Your task to perform on an android device: Search for duracell triple a on newegg, select the first entry, add it to the cart, then select checkout. Image 0: 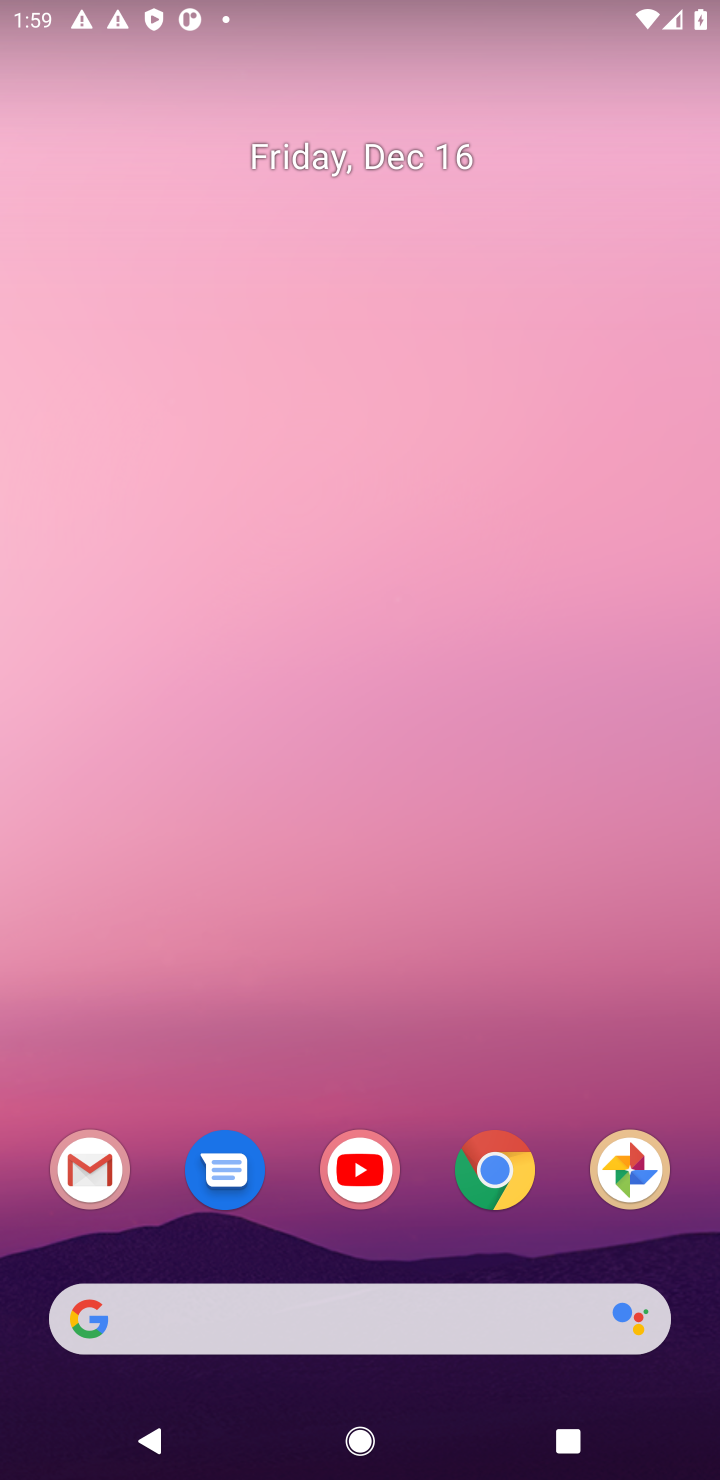
Step 0: click (489, 1179)
Your task to perform on an android device: Search for duracell triple a on newegg, select the first entry, add it to the cart, then select checkout. Image 1: 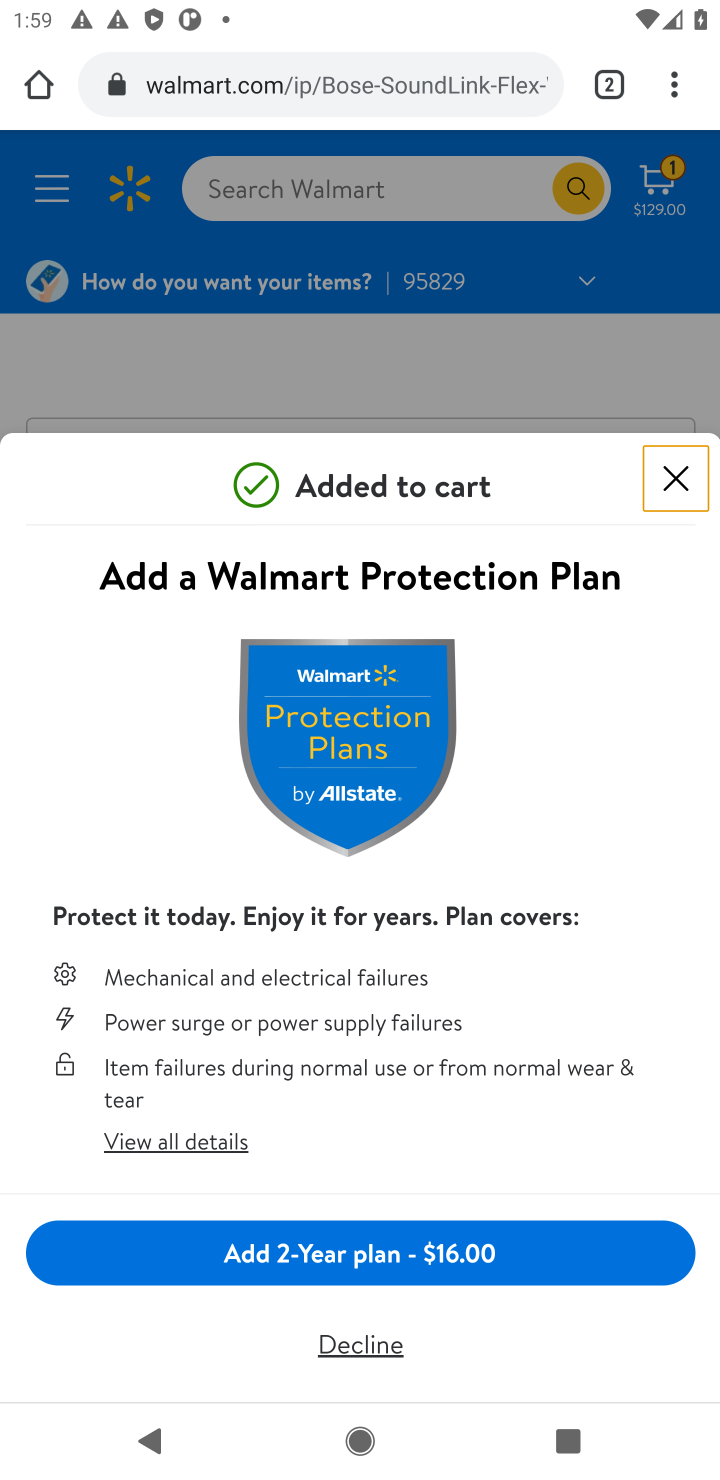
Step 1: click (330, 96)
Your task to perform on an android device: Search for duracell triple a on newegg, select the first entry, add it to the cart, then select checkout. Image 2: 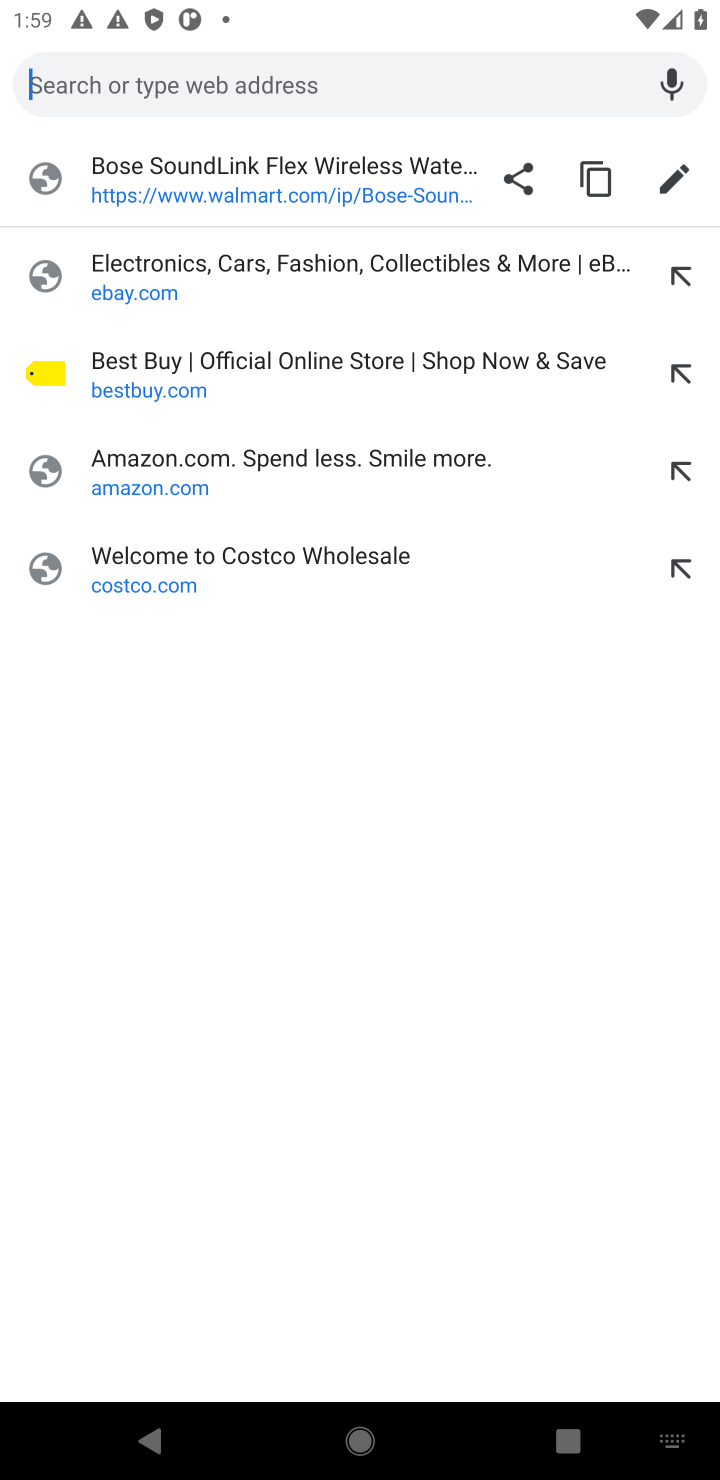
Step 2: type "newegg.com"
Your task to perform on an android device: Search for duracell triple a on newegg, select the first entry, add it to the cart, then select checkout. Image 3: 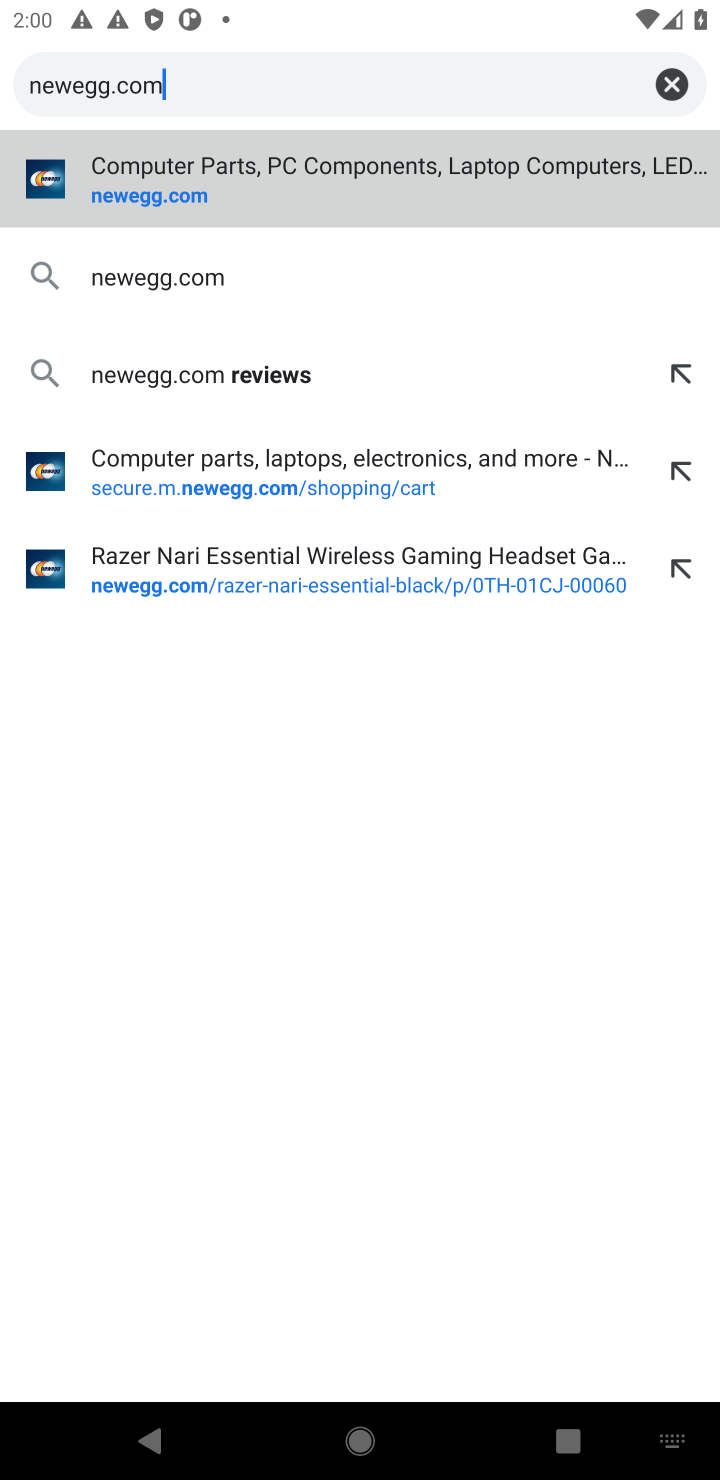
Step 3: click (168, 194)
Your task to perform on an android device: Search for duracell triple a on newegg, select the first entry, add it to the cart, then select checkout. Image 4: 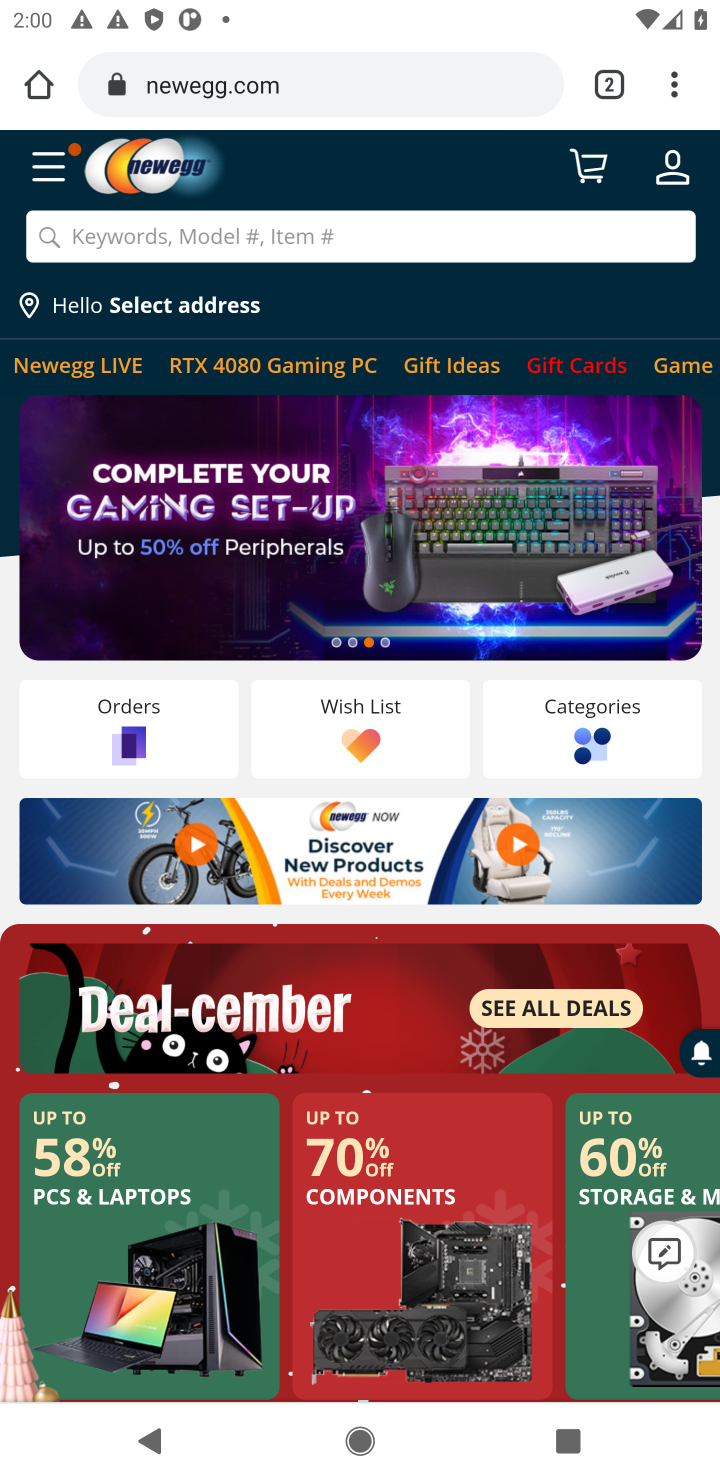
Step 4: click (135, 245)
Your task to perform on an android device: Search for duracell triple a on newegg, select the first entry, add it to the cart, then select checkout. Image 5: 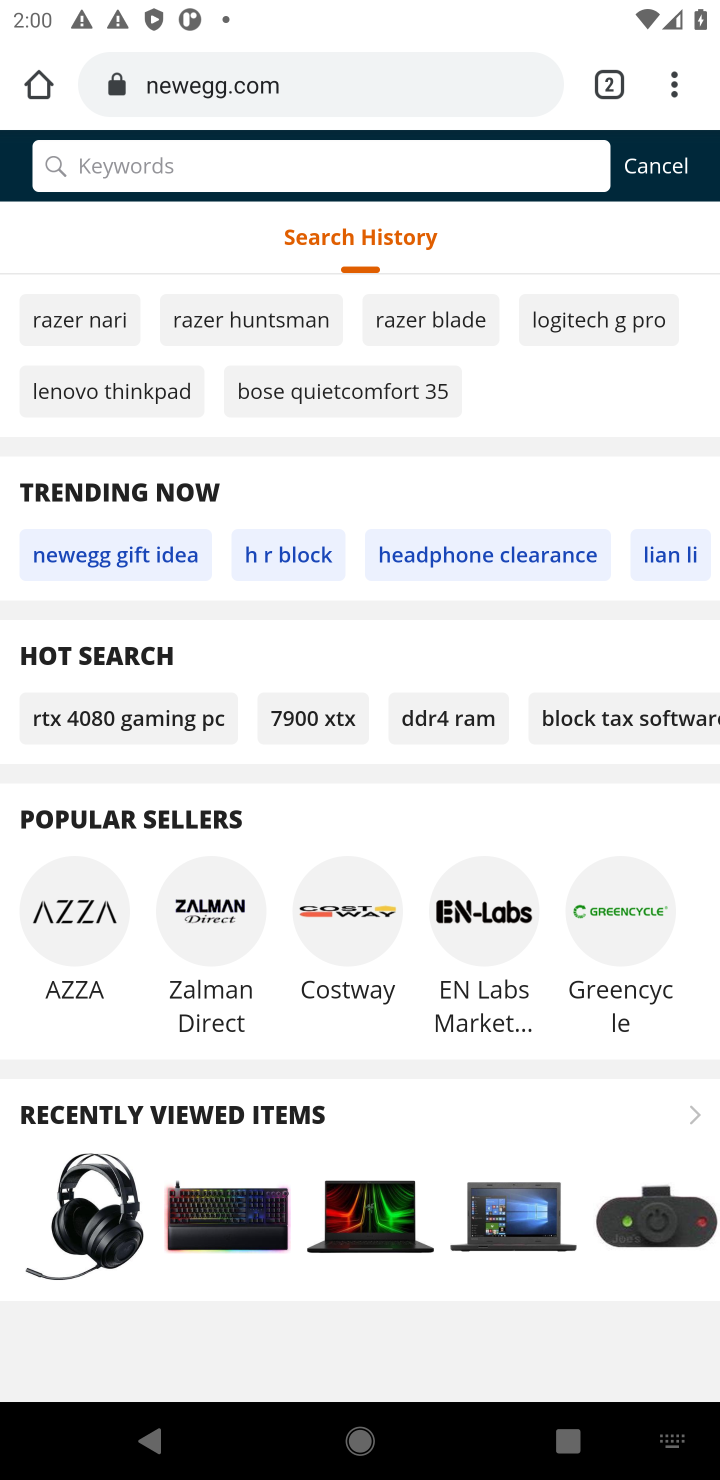
Step 5: type "duracell triple a"
Your task to perform on an android device: Search for duracell triple a on newegg, select the first entry, add it to the cart, then select checkout. Image 6: 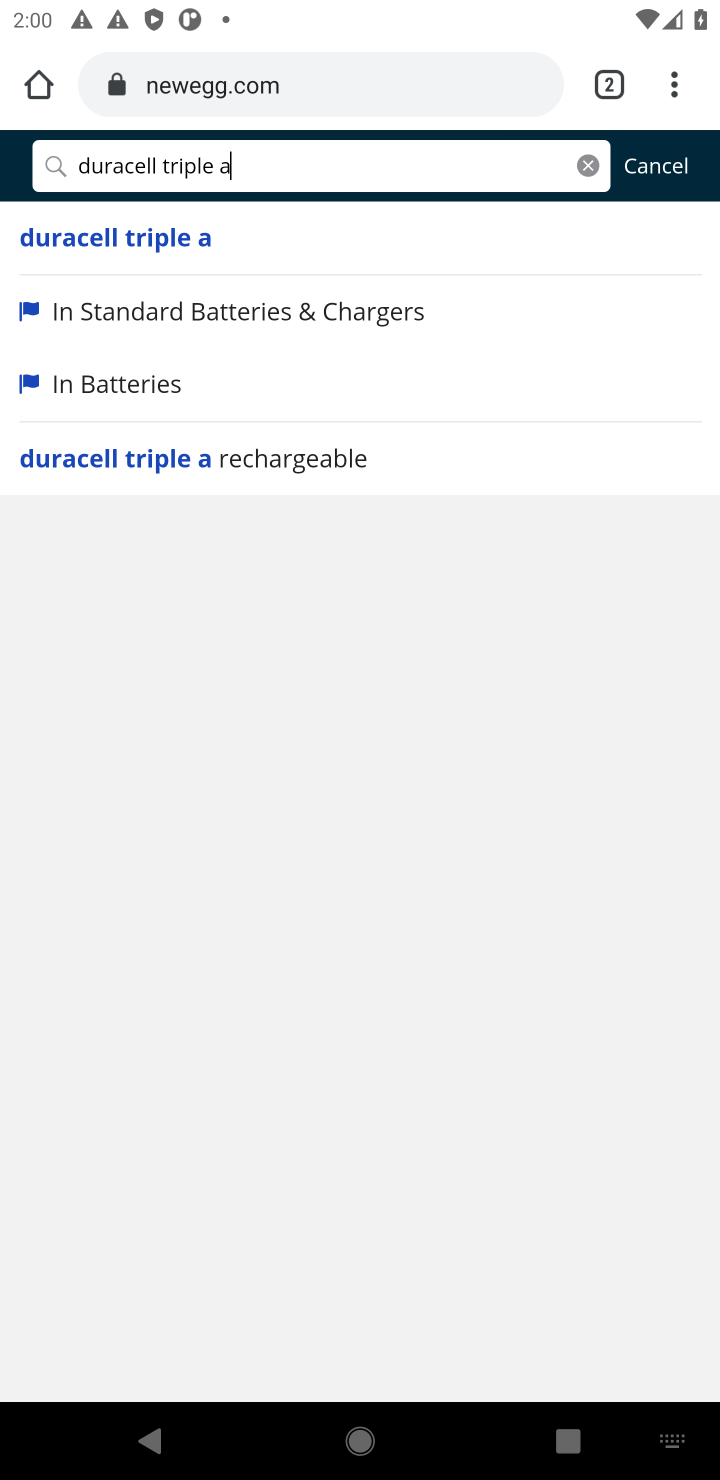
Step 6: click (141, 239)
Your task to perform on an android device: Search for duracell triple a on newegg, select the first entry, add it to the cart, then select checkout. Image 7: 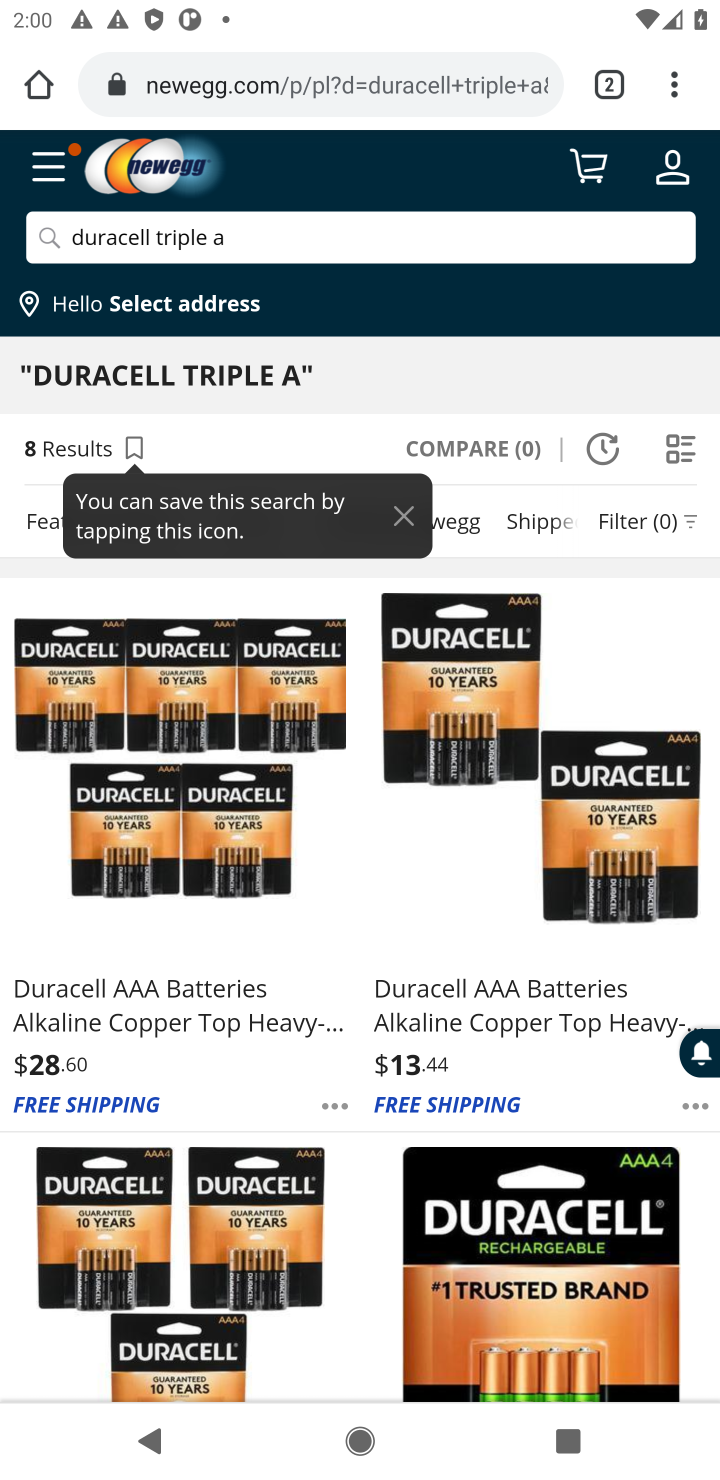
Step 7: click (179, 848)
Your task to perform on an android device: Search for duracell triple a on newegg, select the first entry, add it to the cart, then select checkout. Image 8: 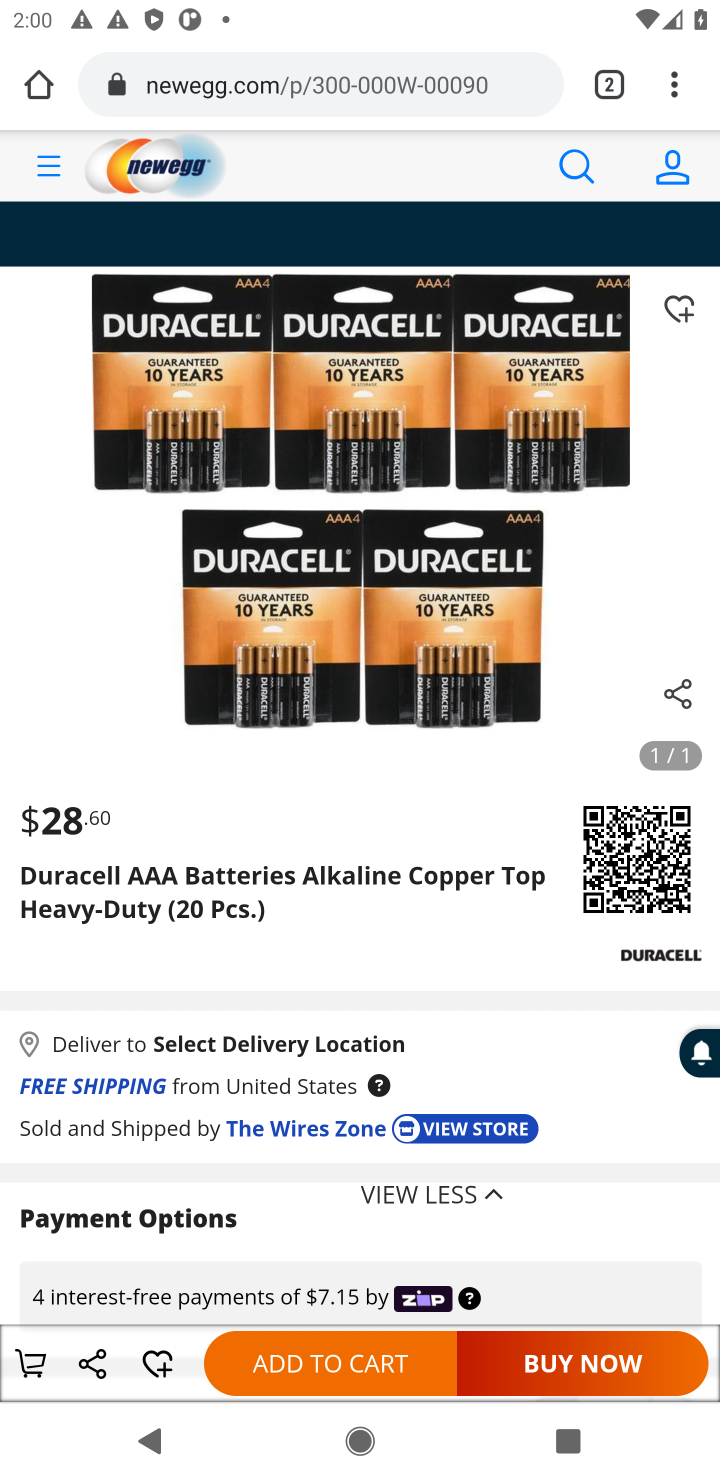
Step 8: click (310, 1352)
Your task to perform on an android device: Search for duracell triple a on newegg, select the first entry, add it to the cart, then select checkout. Image 9: 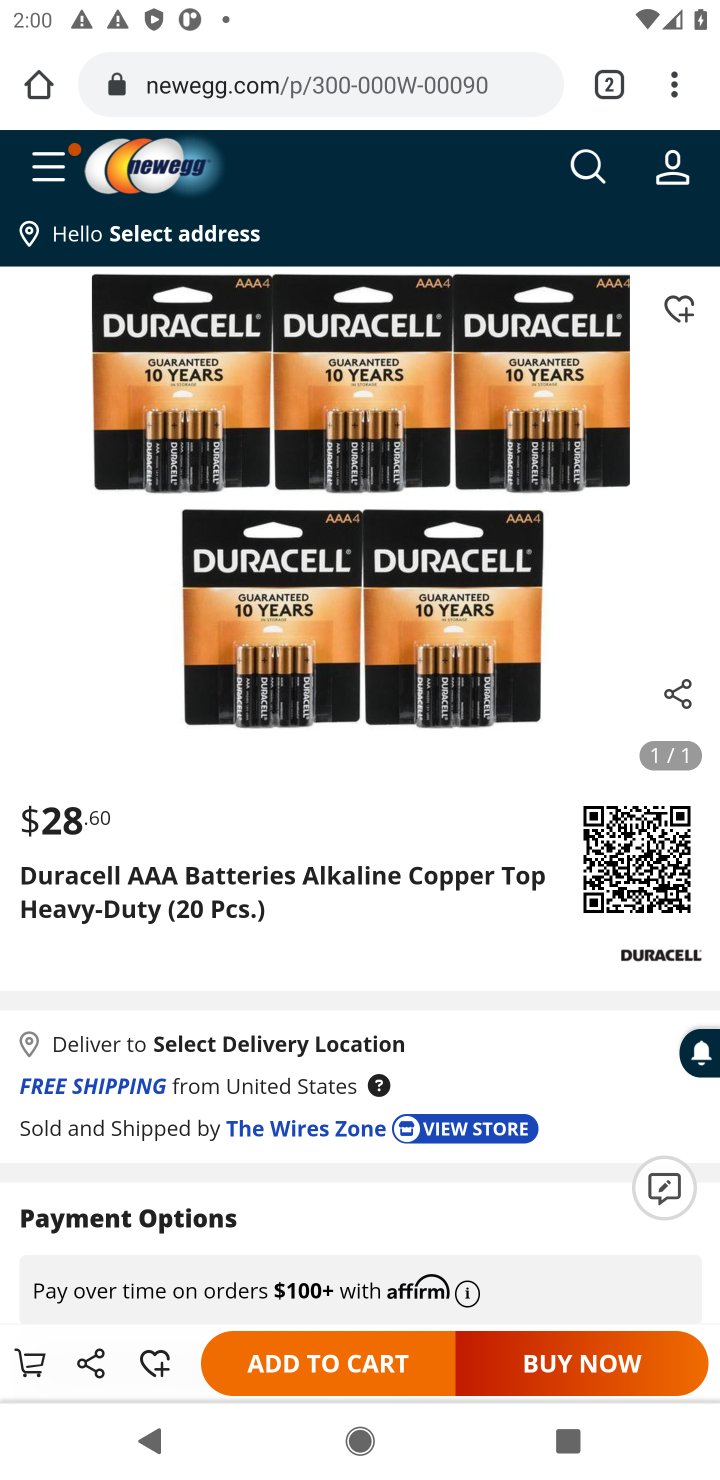
Step 9: click (324, 1369)
Your task to perform on an android device: Search for duracell triple a on newegg, select the first entry, add it to the cart, then select checkout. Image 10: 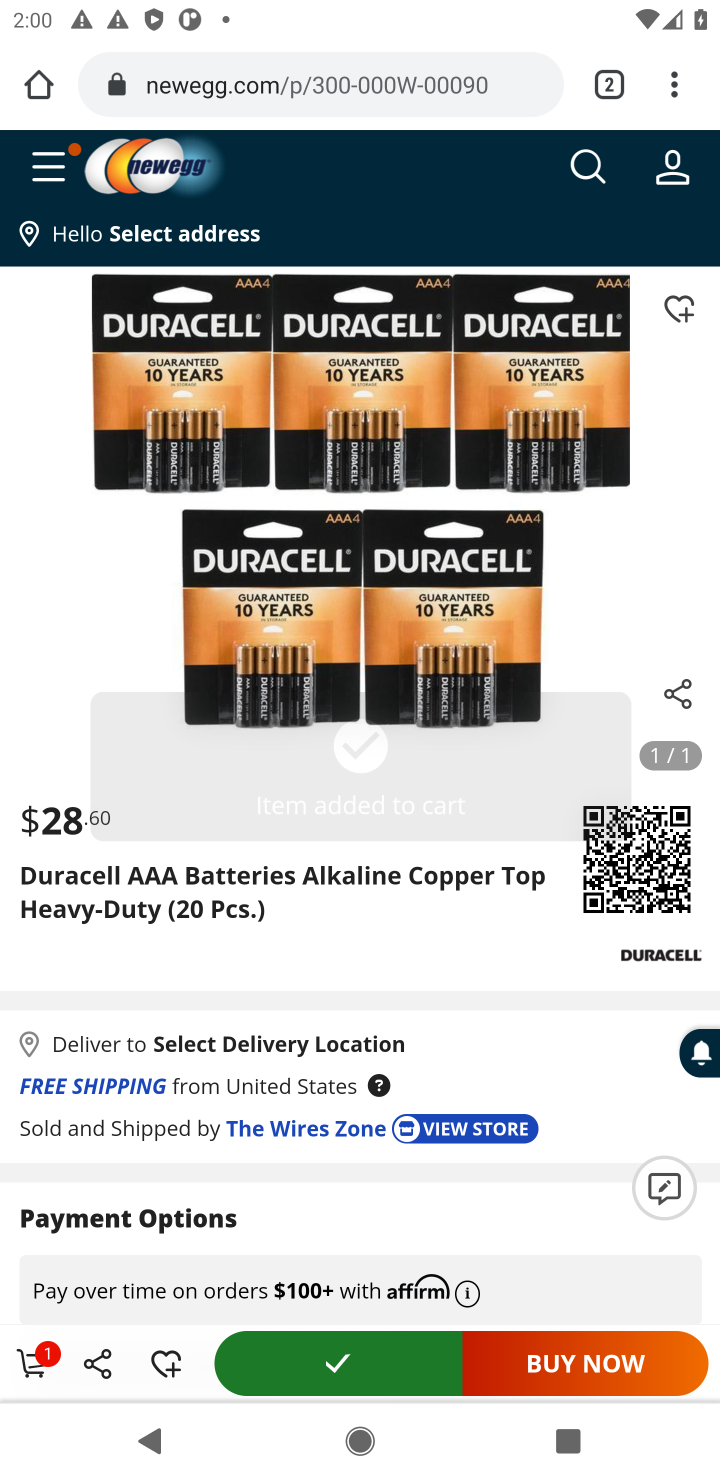
Step 10: click (46, 1365)
Your task to perform on an android device: Search for duracell triple a on newegg, select the first entry, add it to the cart, then select checkout. Image 11: 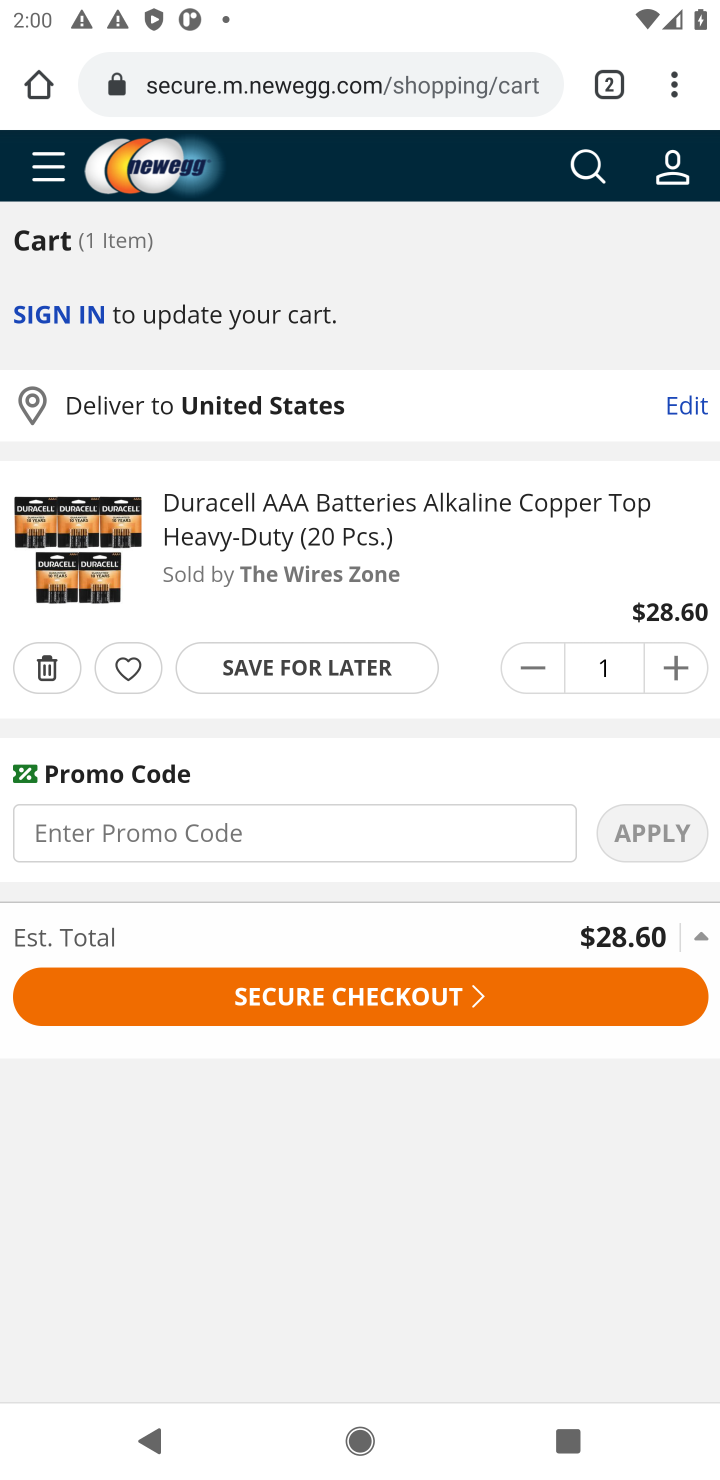
Step 11: click (308, 995)
Your task to perform on an android device: Search for duracell triple a on newegg, select the first entry, add it to the cart, then select checkout. Image 12: 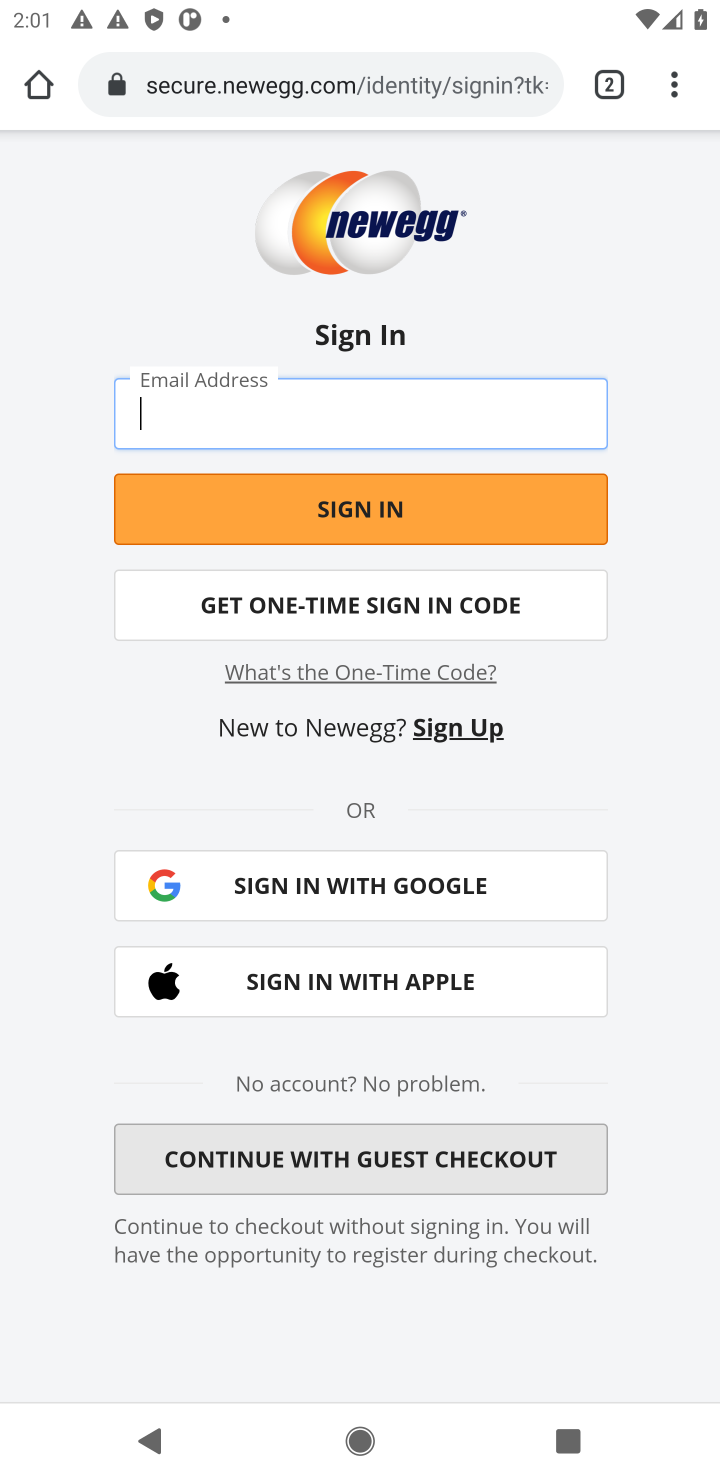
Step 12: task complete